Your task to perform on an android device: Show me recent news Image 0: 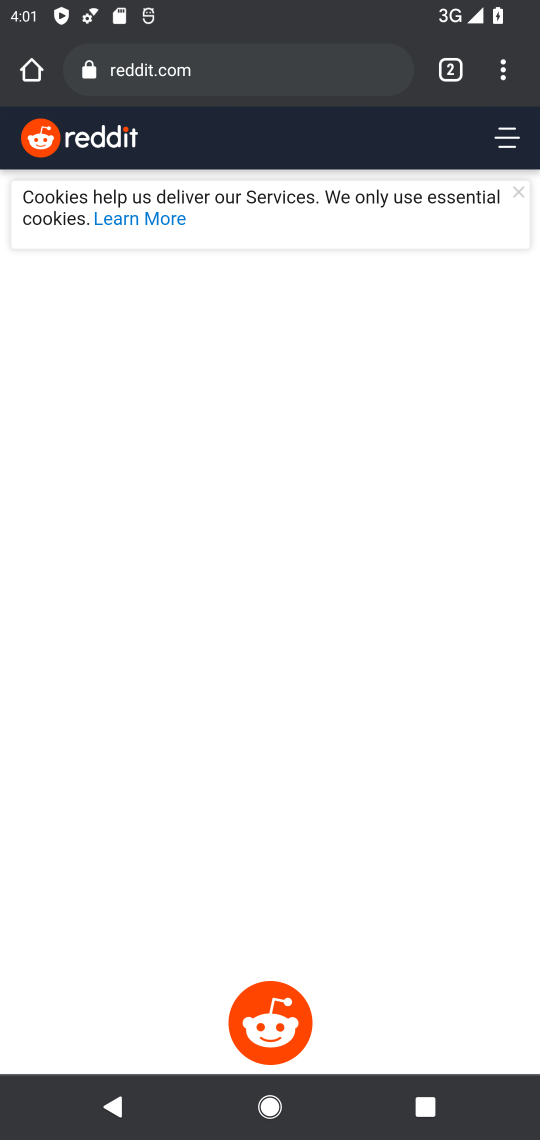
Step 0: press home button
Your task to perform on an android device: Show me recent news Image 1: 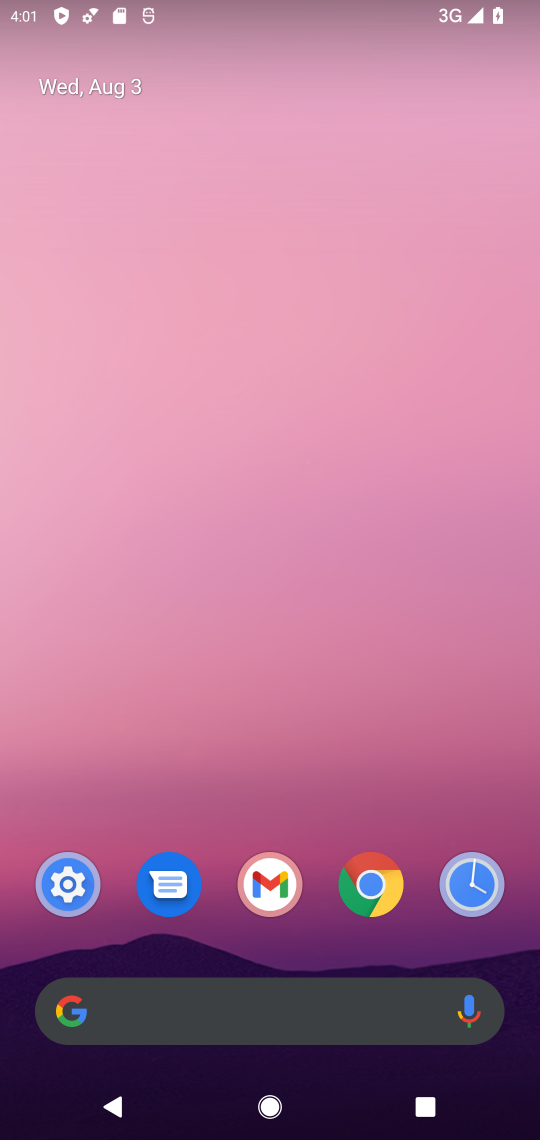
Step 1: click (183, 1027)
Your task to perform on an android device: Show me recent news Image 2: 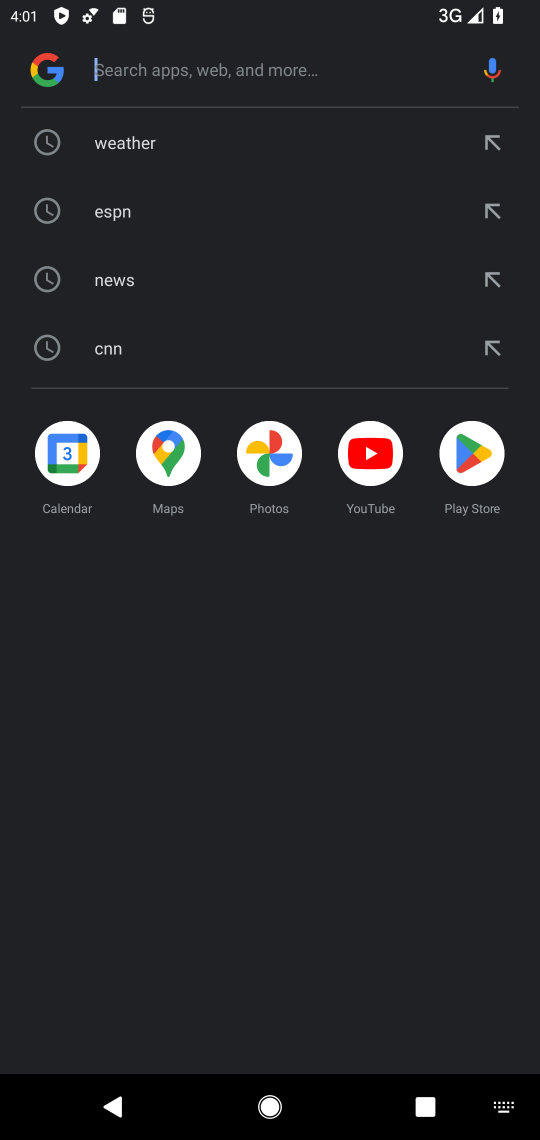
Step 2: type "news"
Your task to perform on an android device: Show me recent news Image 3: 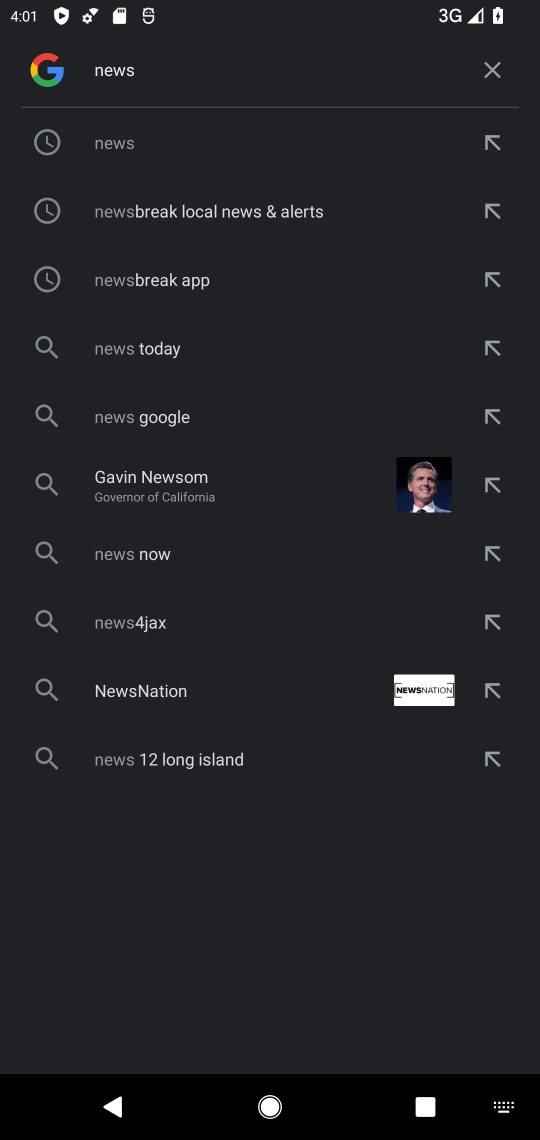
Step 3: click (292, 148)
Your task to perform on an android device: Show me recent news Image 4: 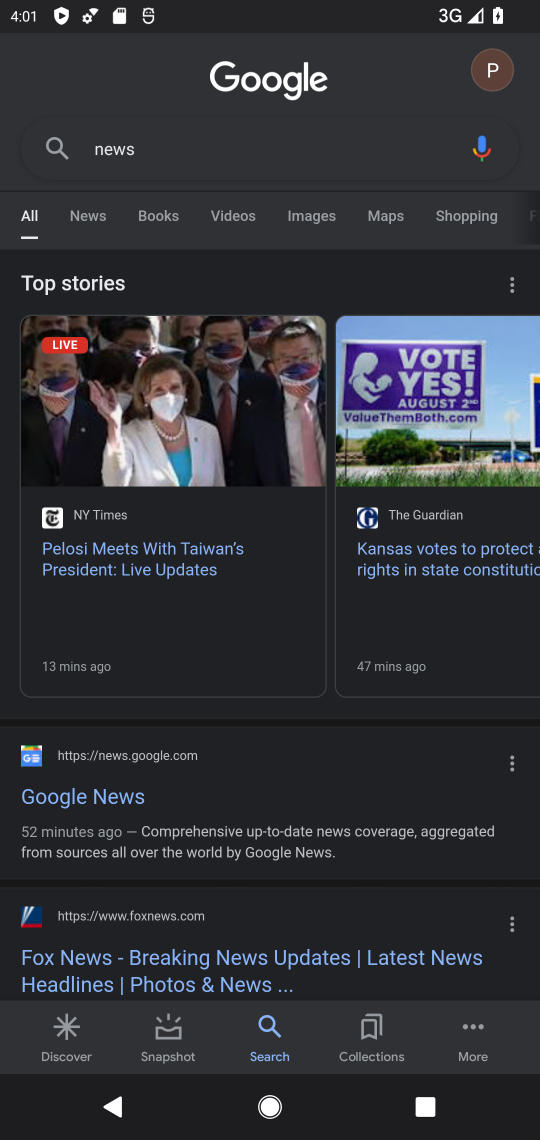
Step 4: task complete